Your task to perform on an android device: Go to Android settings Image 0: 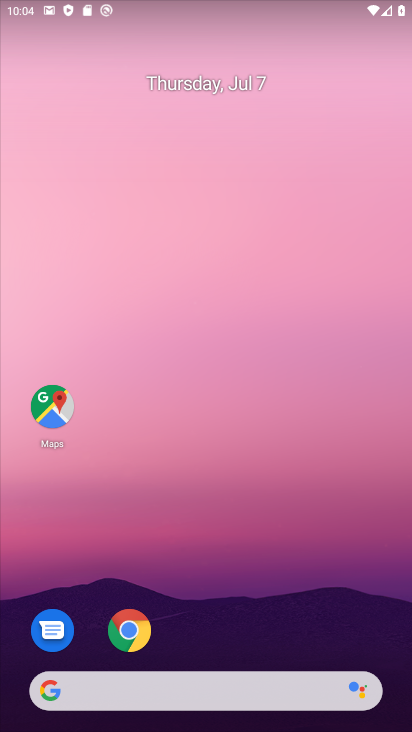
Step 0: drag from (234, 449) to (199, 182)
Your task to perform on an android device: Go to Android settings Image 1: 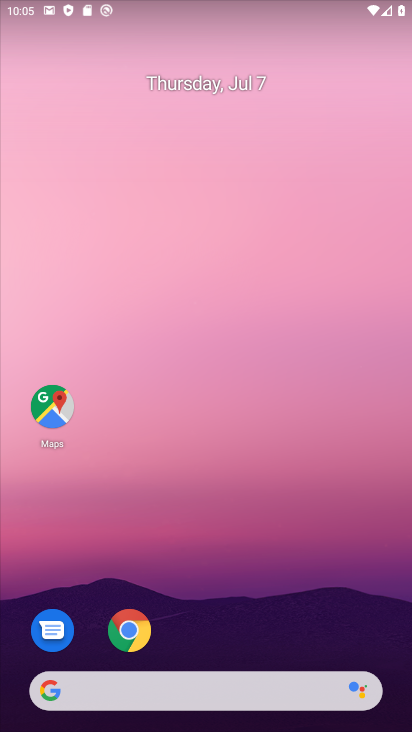
Step 1: click (195, 198)
Your task to perform on an android device: Go to Android settings Image 2: 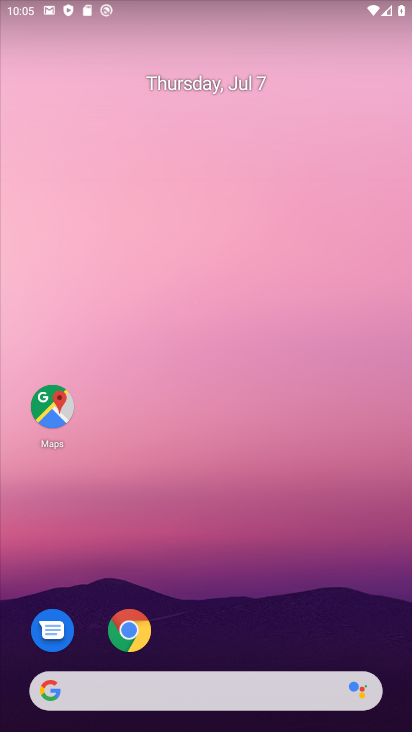
Step 2: drag from (246, 640) to (122, 21)
Your task to perform on an android device: Go to Android settings Image 3: 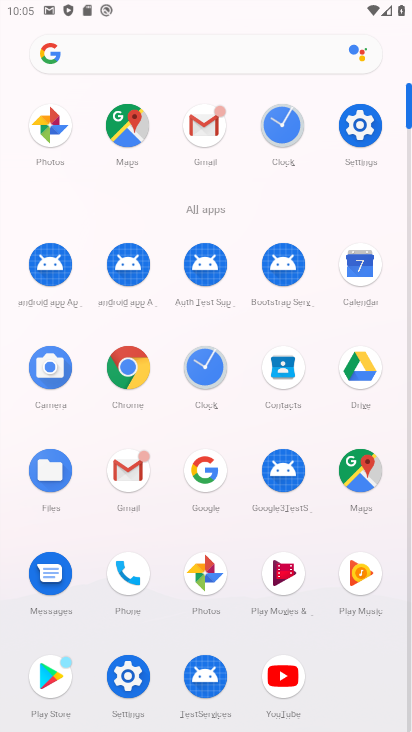
Step 3: click (352, 128)
Your task to perform on an android device: Go to Android settings Image 4: 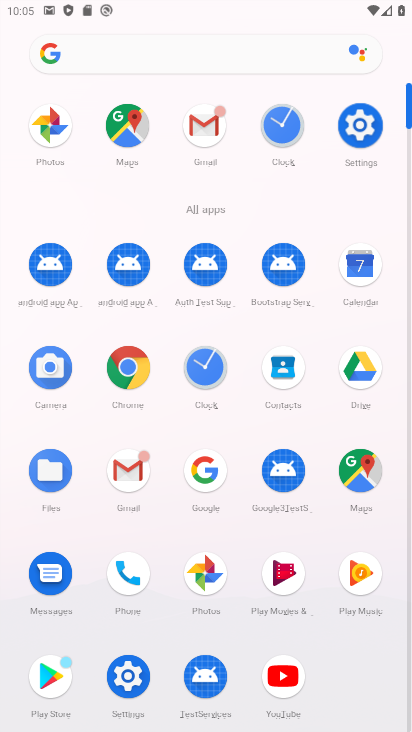
Step 4: click (352, 125)
Your task to perform on an android device: Go to Android settings Image 5: 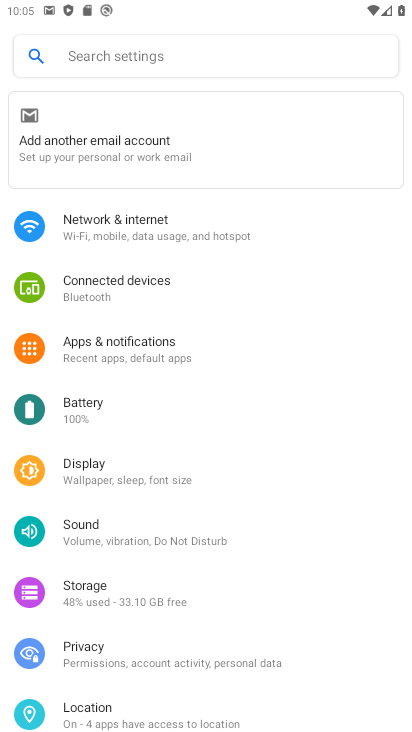
Step 5: drag from (160, 534) to (121, 74)
Your task to perform on an android device: Go to Android settings Image 6: 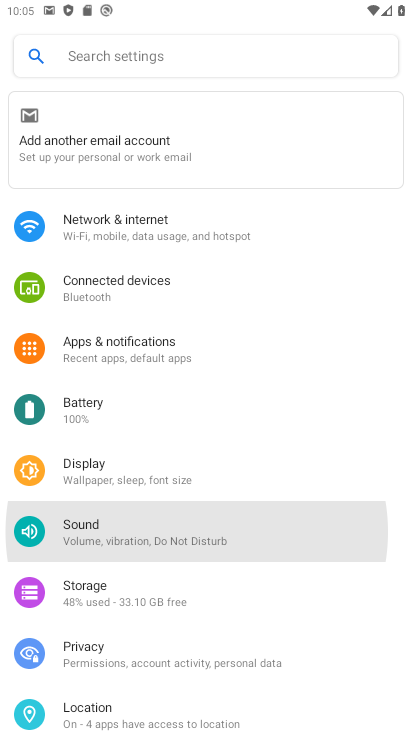
Step 6: drag from (161, 537) to (158, 152)
Your task to perform on an android device: Go to Android settings Image 7: 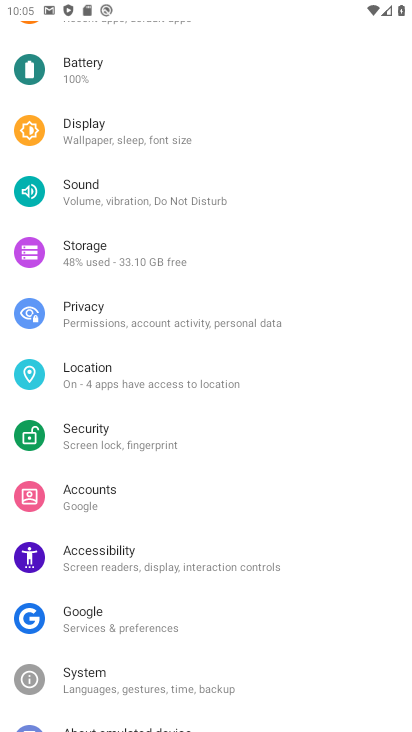
Step 7: drag from (200, 412) to (227, 65)
Your task to perform on an android device: Go to Android settings Image 8: 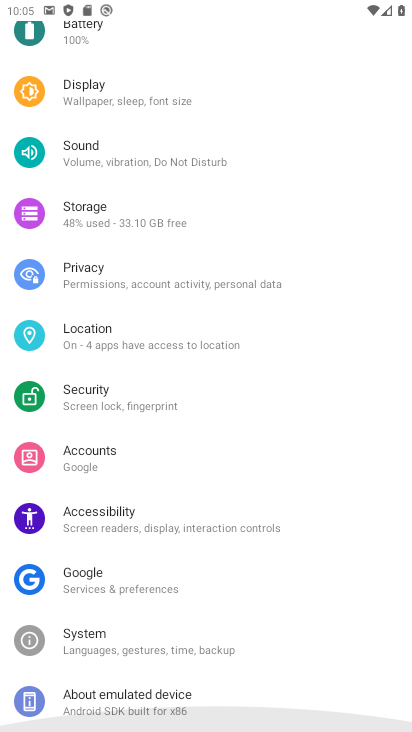
Step 8: drag from (321, 381) to (291, 140)
Your task to perform on an android device: Go to Android settings Image 9: 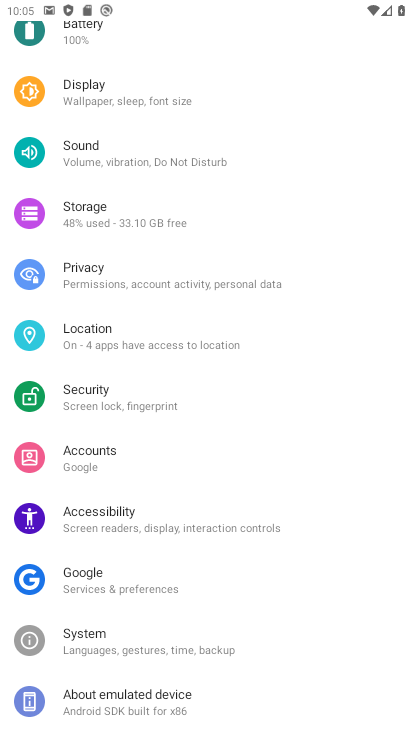
Step 9: drag from (130, 399) to (162, 220)
Your task to perform on an android device: Go to Android settings Image 10: 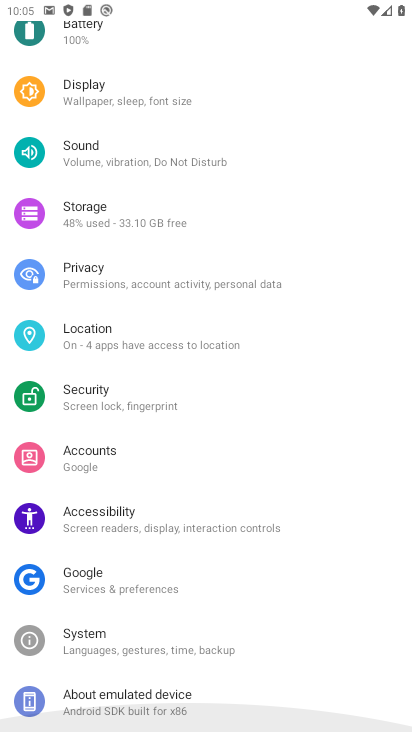
Step 10: drag from (199, 555) to (207, 136)
Your task to perform on an android device: Go to Android settings Image 11: 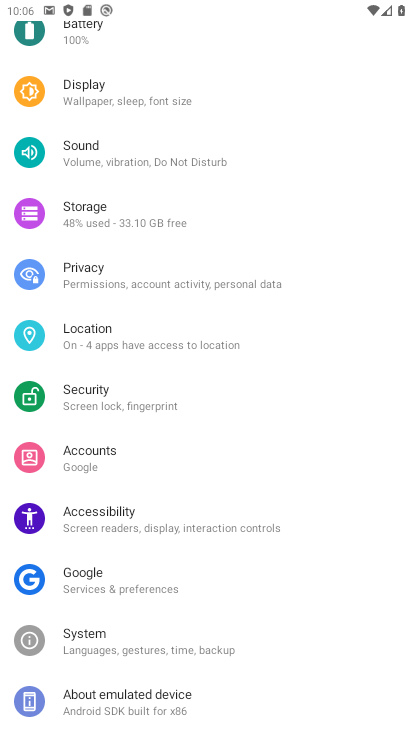
Step 11: drag from (176, 655) to (57, 56)
Your task to perform on an android device: Go to Android settings Image 12: 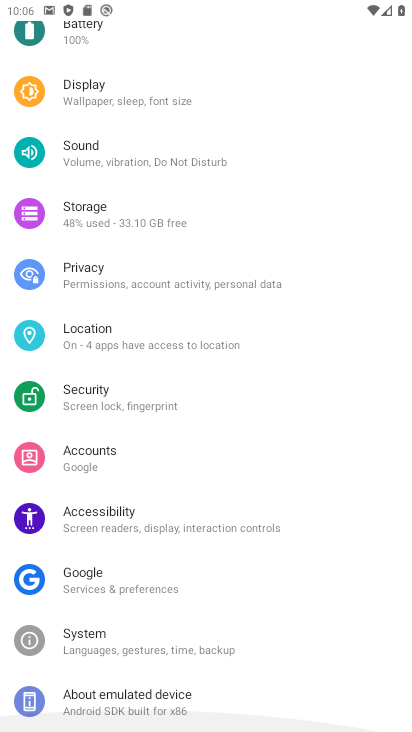
Step 12: drag from (160, 530) to (155, 233)
Your task to perform on an android device: Go to Android settings Image 13: 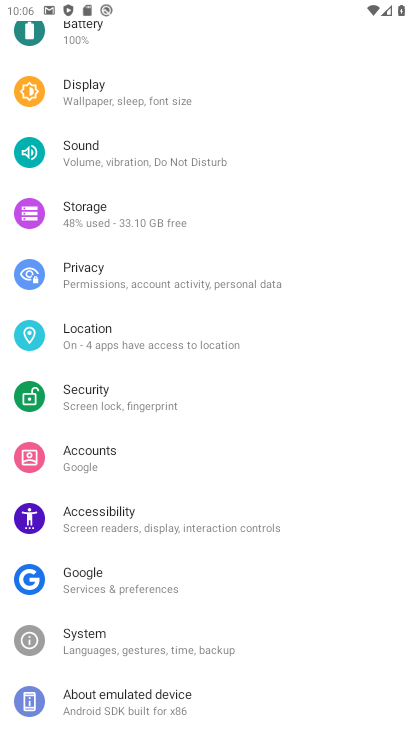
Step 13: click (112, 699)
Your task to perform on an android device: Go to Android settings Image 14: 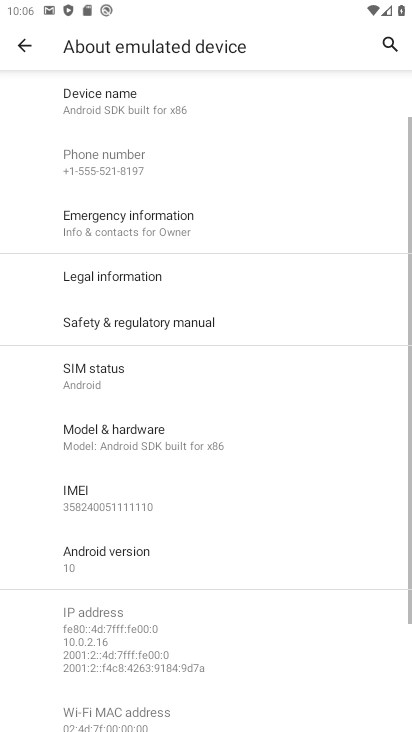
Step 14: task complete